Your task to perform on an android device: turn notification dots on Image 0: 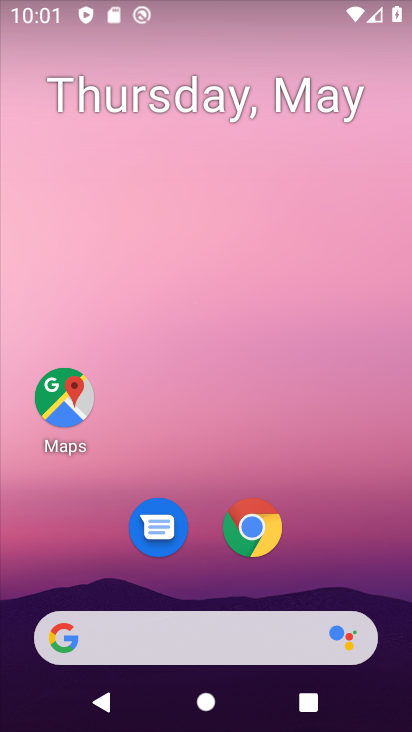
Step 0: drag from (314, 589) to (277, 150)
Your task to perform on an android device: turn notification dots on Image 1: 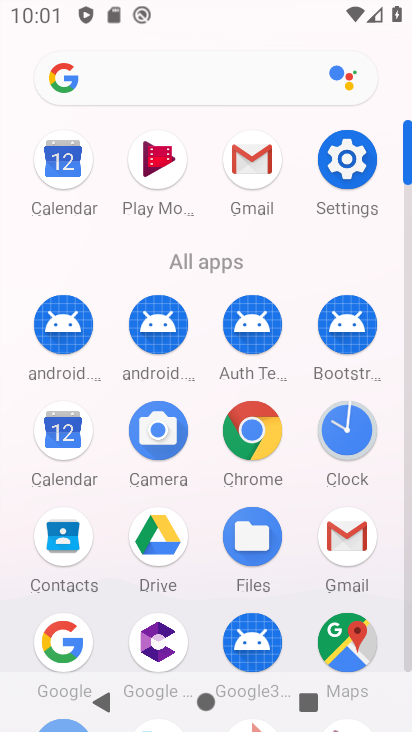
Step 1: click (347, 201)
Your task to perform on an android device: turn notification dots on Image 2: 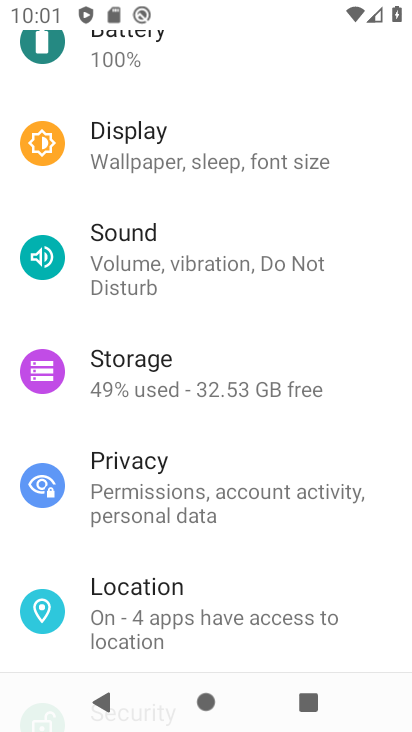
Step 2: click (226, 620)
Your task to perform on an android device: turn notification dots on Image 3: 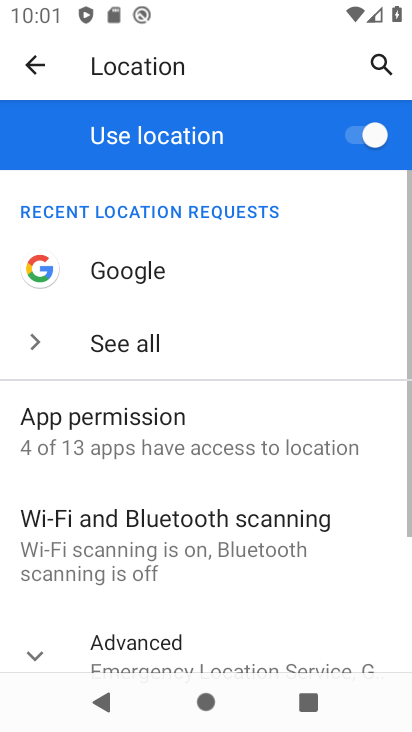
Step 3: click (42, 71)
Your task to perform on an android device: turn notification dots on Image 4: 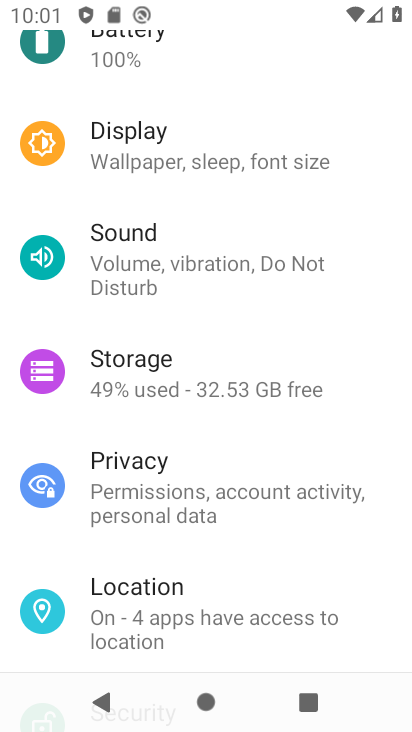
Step 4: drag from (146, 136) to (144, 468)
Your task to perform on an android device: turn notification dots on Image 5: 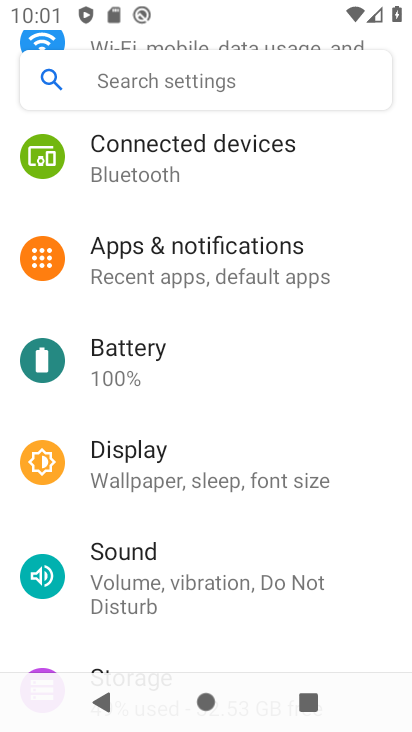
Step 5: drag from (157, 173) to (157, 525)
Your task to perform on an android device: turn notification dots on Image 6: 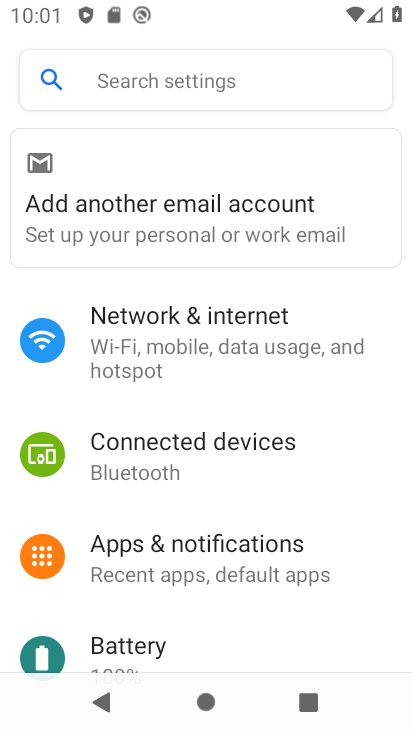
Step 6: click (134, 573)
Your task to perform on an android device: turn notification dots on Image 7: 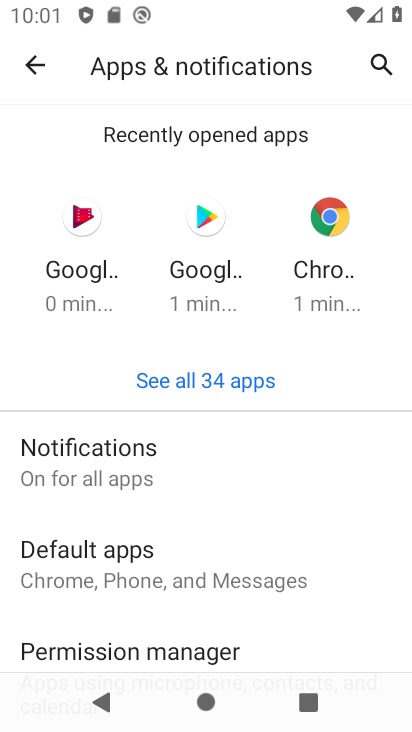
Step 7: drag from (151, 641) to (158, 322)
Your task to perform on an android device: turn notification dots on Image 8: 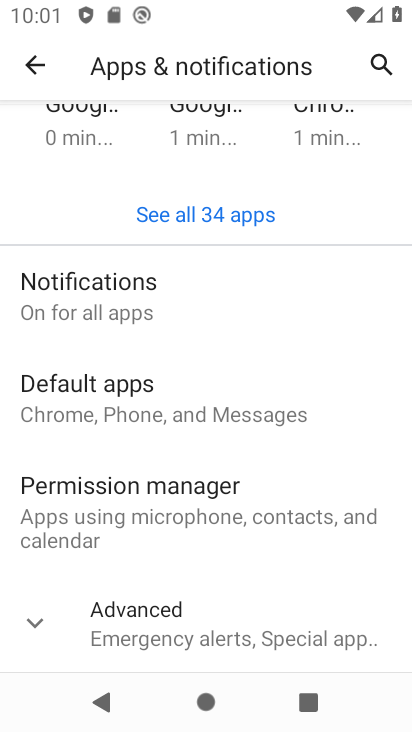
Step 8: click (111, 309)
Your task to perform on an android device: turn notification dots on Image 9: 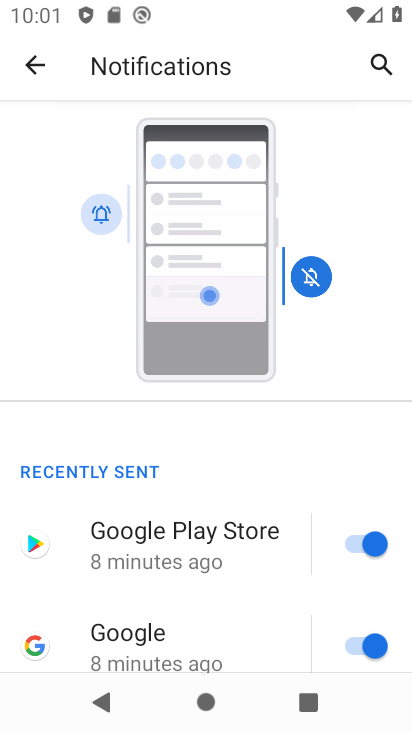
Step 9: click (221, 260)
Your task to perform on an android device: turn notification dots on Image 10: 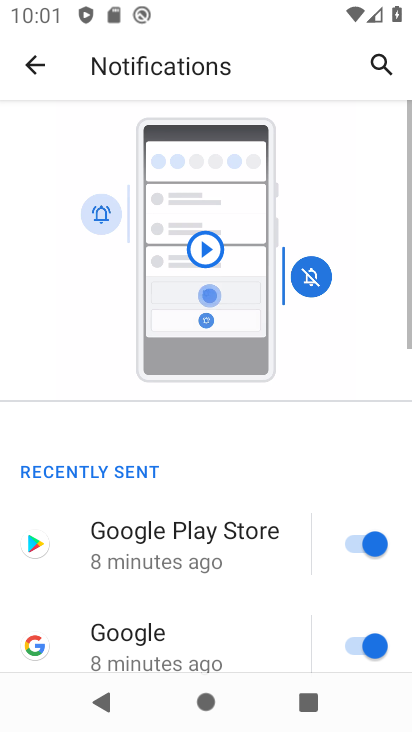
Step 10: drag from (209, 511) to (215, 361)
Your task to perform on an android device: turn notification dots on Image 11: 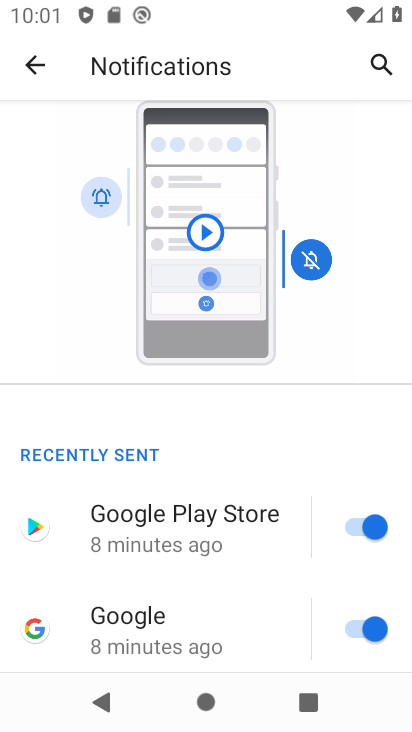
Step 11: drag from (255, 608) to (253, 408)
Your task to perform on an android device: turn notification dots on Image 12: 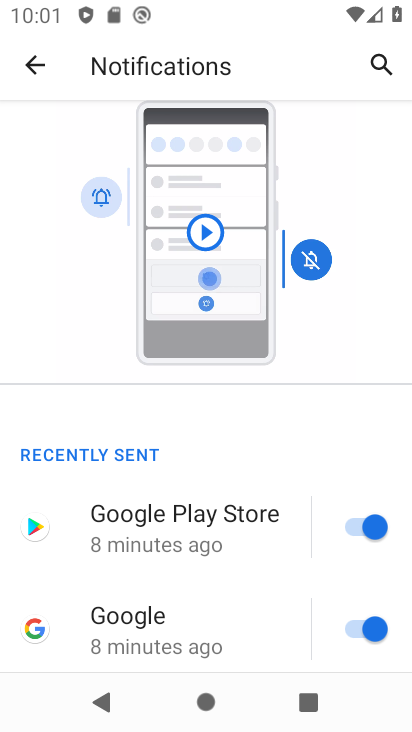
Step 12: drag from (123, 608) to (153, 365)
Your task to perform on an android device: turn notification dots on Image 13: 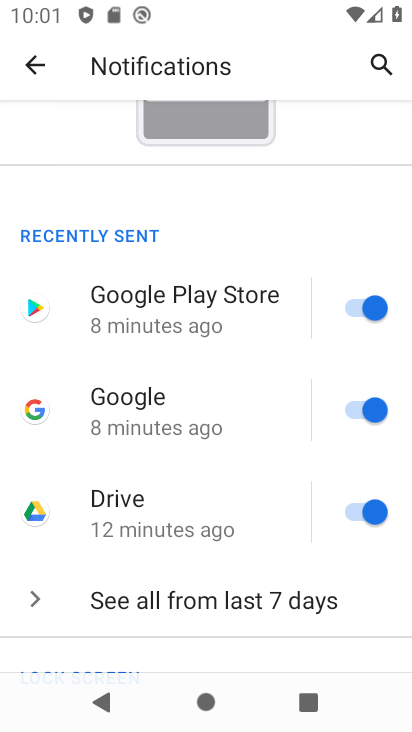
Step 13: drag from (169, 593) to (178, 246)
Your task to perform on an android device: turn notification dots on Image 14: 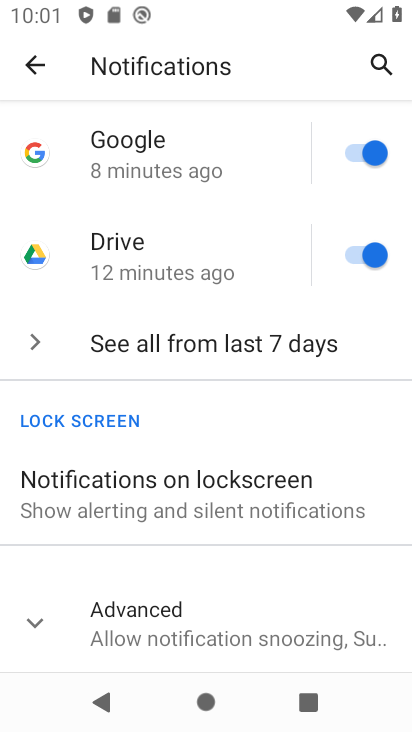
Step 14: click (163, 627)
Your task to perform on an android device: turn notification dots on Image 15: 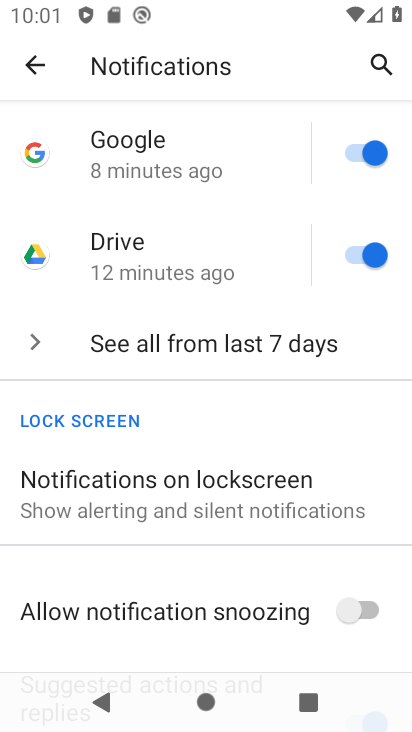
Step 15: task complete